Your task to perform on an android device: Go to accessibility settings Image 0: 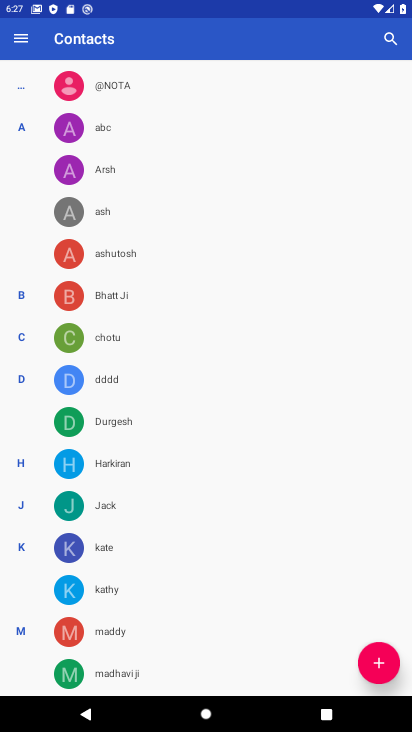
Step 0: press home button
Your task to perform on an android device: Go to accessibility settings Image 1: 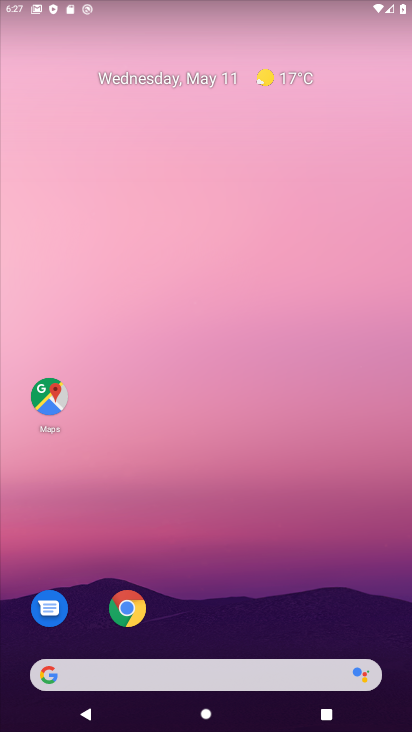
Step 1: drag from (303, 596) to (289, 53)
Your task to perform on an android device: Go to accessibility settings Image 2: 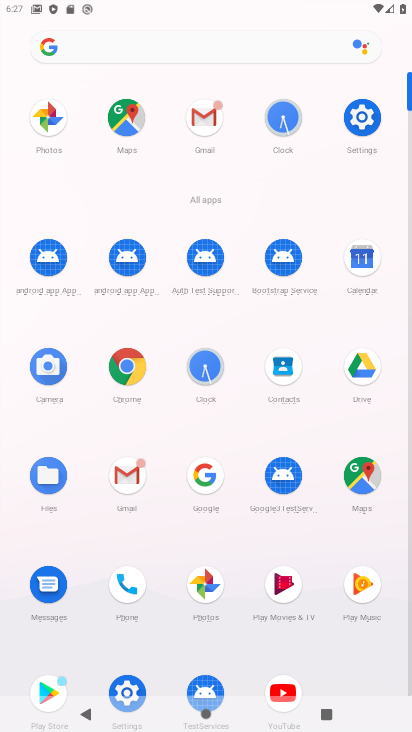
Step 2: click (376, 142)
Your task to perform on an android device: Go to accessibility settings Image 3: 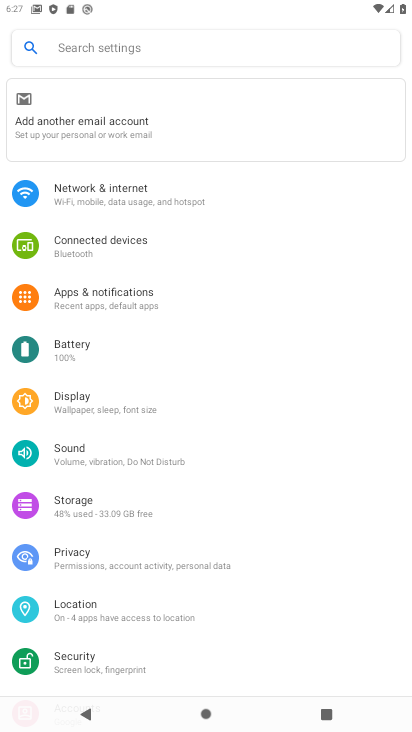
Step 3: drag from (138, 632) to (181, 362)
Your task to perform on an android device: Go to accessibility settings Image 4: 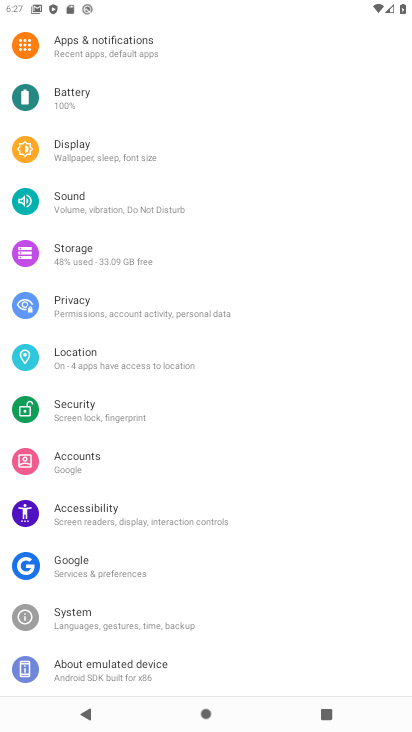
Step 4: click (130, 513)
Your task to perform on an android device: Go to accessibility settings Image 5: 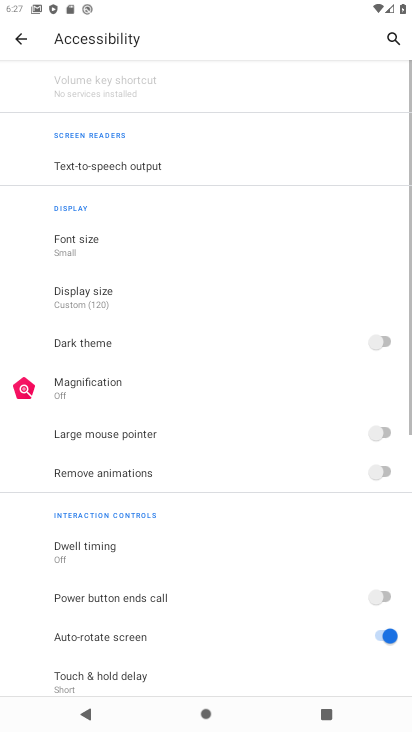
Step 5: task complete